Your task to perform on an android device: When is my next appointment? Image 0: 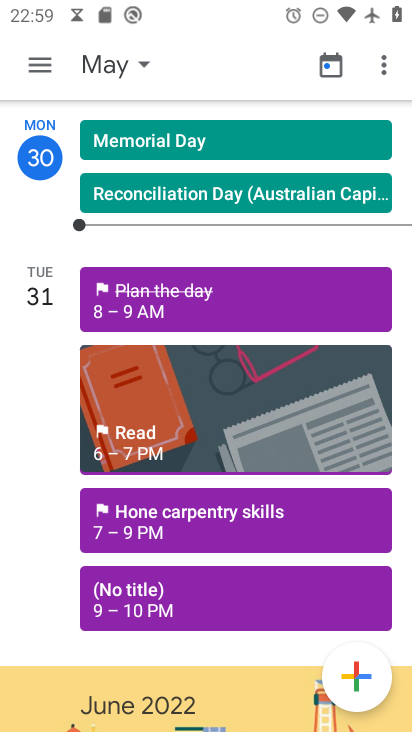
Step 0: press home button
Your task to perform on an android device: When is my next appointment? Image 1: 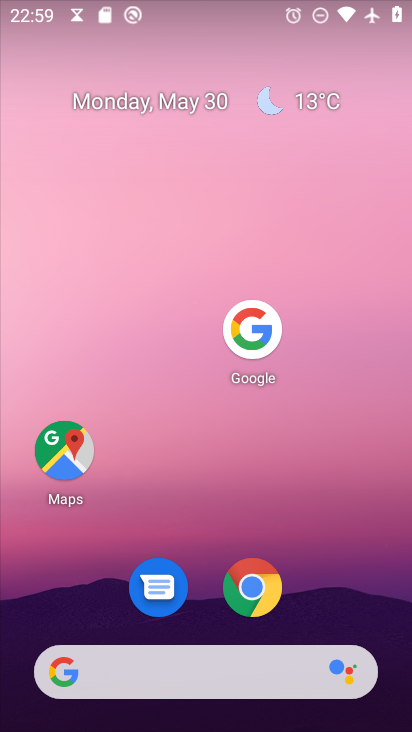
Step 1: drag from (161, 681) to (279, 286)
Your task to perform on an android device: When is my next appointment? Image 2: 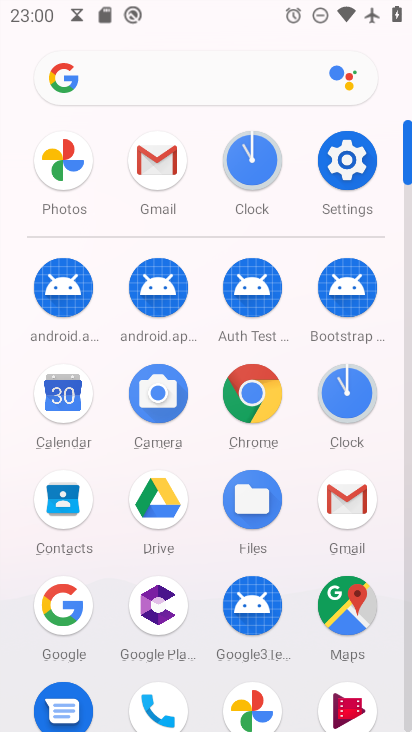
Step 2: click (53, 398)
Your task to perform on an android device: When is my next appointment? Image 3: 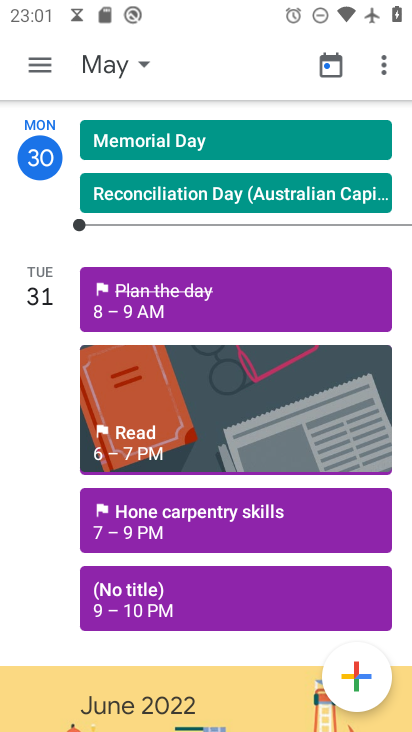
Step 3: task complete